Your task to perform on an android device: toggle sleep mode Image 0: 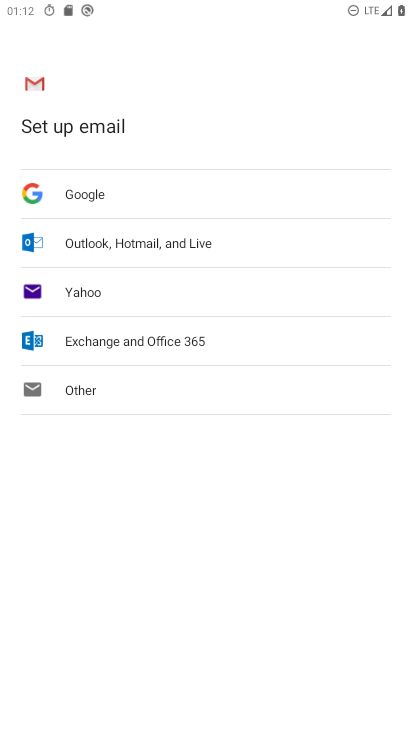
Step 0: press home button
Your task to perform on an android device: toggle sleep mode Image 1: 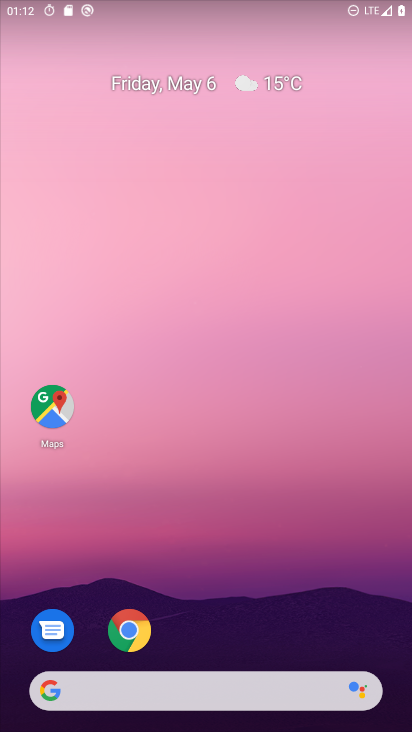
Step 1: drag from (219, 595) to (319, 164)
Your task to perform on an android device: toggle sleep mode Image 2: 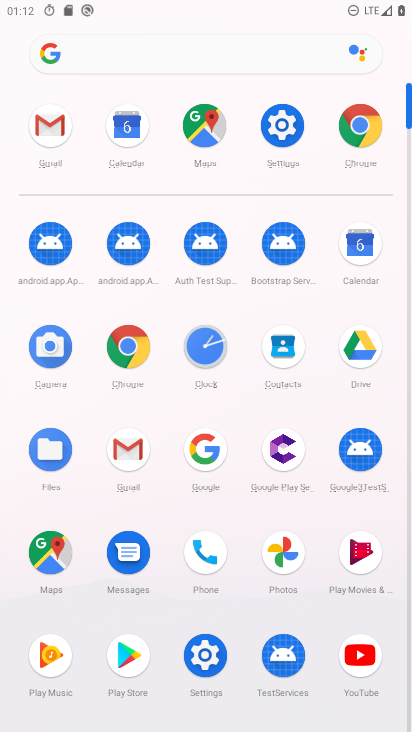
Step 2: click (284, 130)
Your task to perform on an android device: toggle sleep mode Image 3: 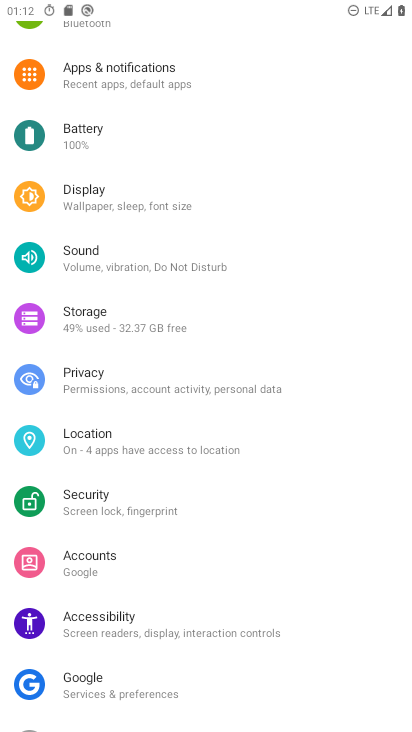
Step 3: click (151, 201)
Your task to perform on an android device: toggle sleep mode Image 4: 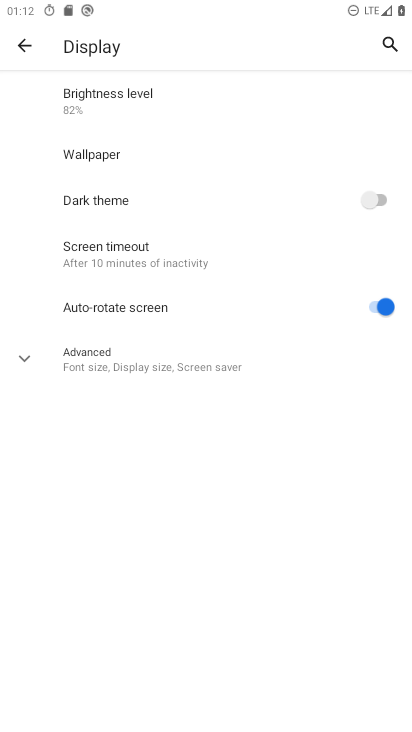
Step 4: click (124, 362)
Your task to perform on an android device: toggle sleep mode Image 5: 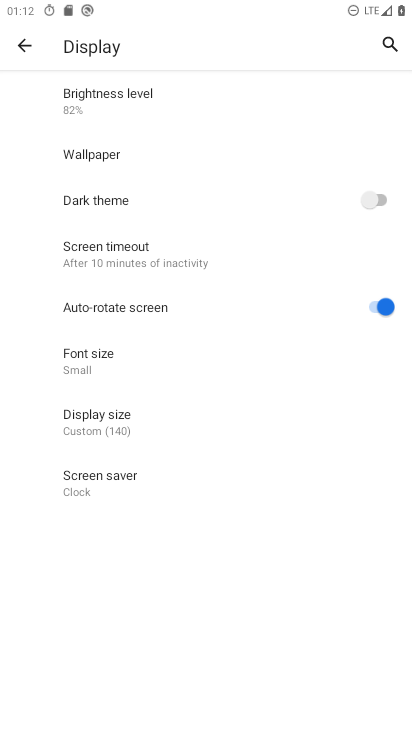
Step 5: click (144, 242)
Your task to perform on an android device: toggle sleep mode Image 6: 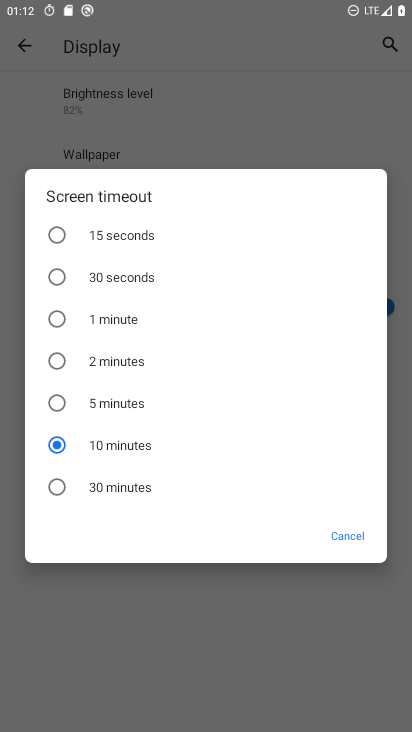
Step 6: click (124, 482)
Your task to perform on an android device: toggle sleep mode Image 7: 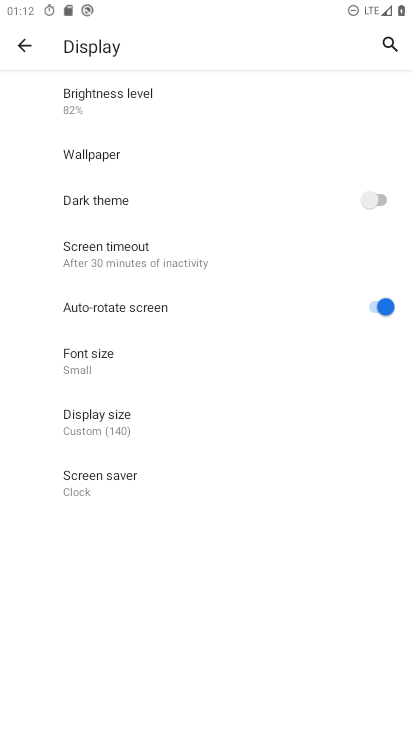
Step 7: task complete